Your task to perform on an android device: Toggle the flashlight Image 0: 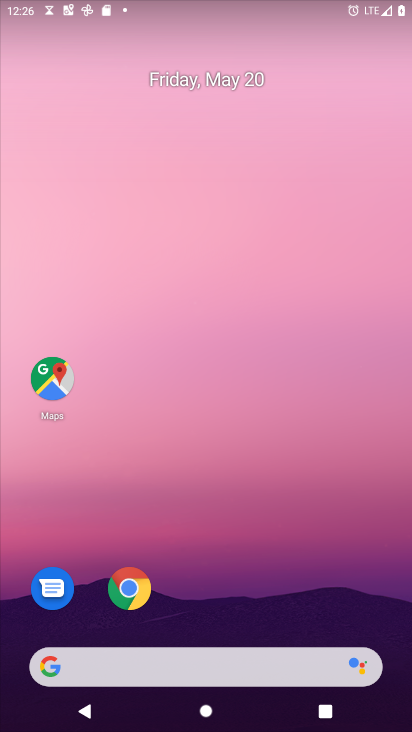
Step 0: drag from (241, 6) to (231, 699)
Your task to perform on an android device: Toggle the flashlight Image 1: 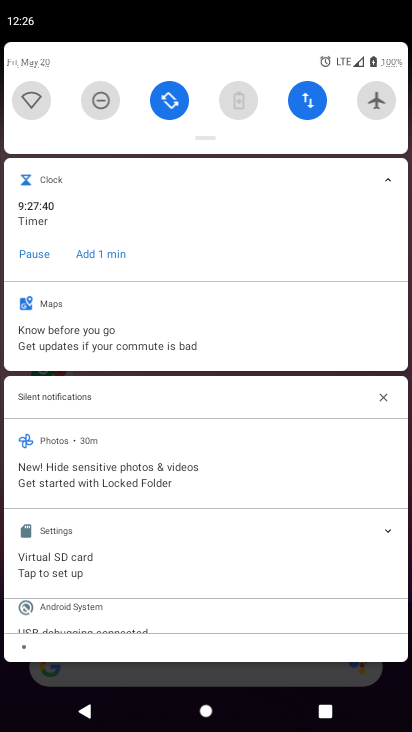
Step 1: task complete